Your task to perform on an android device: When is my next meeting? Image 0: 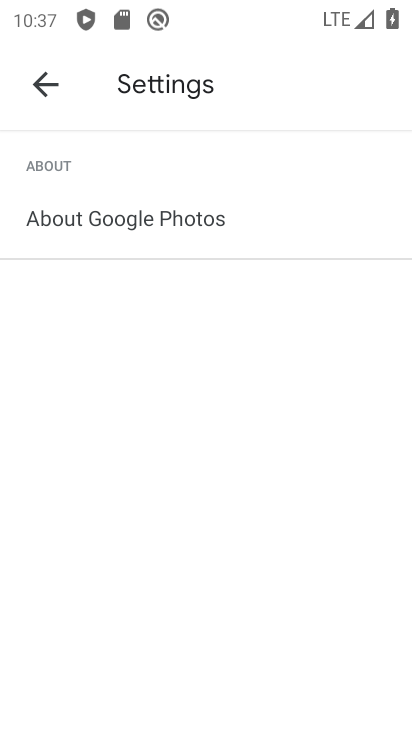
Step 0: press back button
Your task to perform on an android device: When is my next meeting? Image 1: 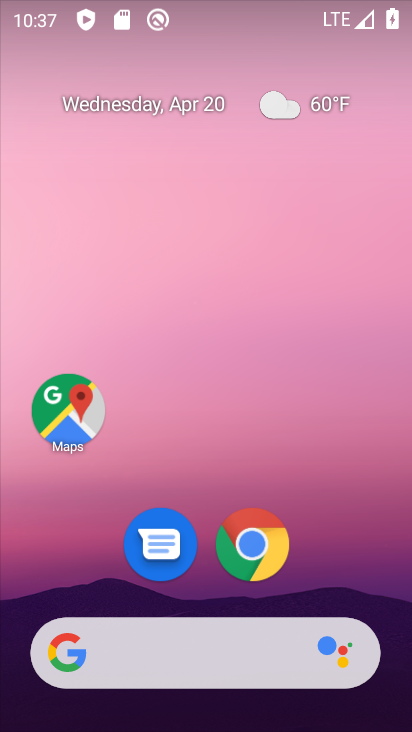
Step 1: drag from (355, 562) to (336, 287)
Your task to perform on an android device: When is my next meeting? Image 2: 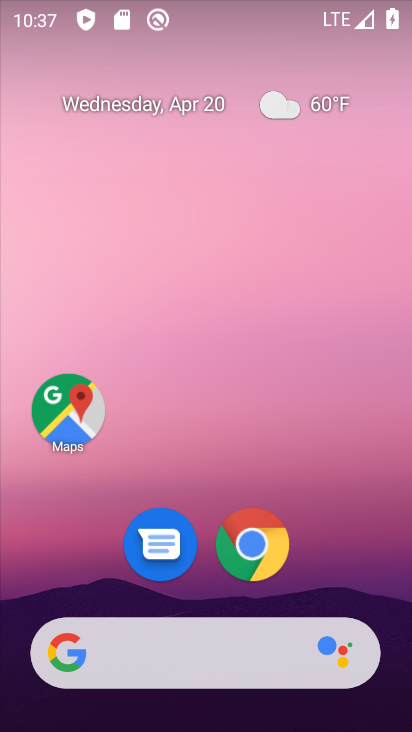
Step 2: drag from (383, 548) to (325, 124)
Your task to perform on an android device: When is my next meeting? Image 3: 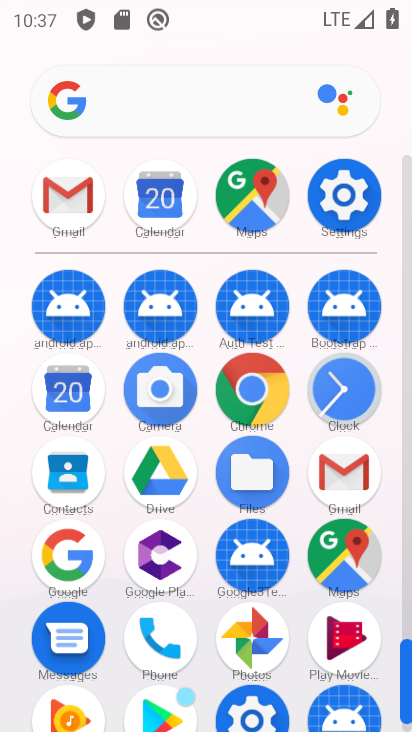
Step 3: click (57, 399)
Your task to perform on an android device: When is my next meeting? Image 4: 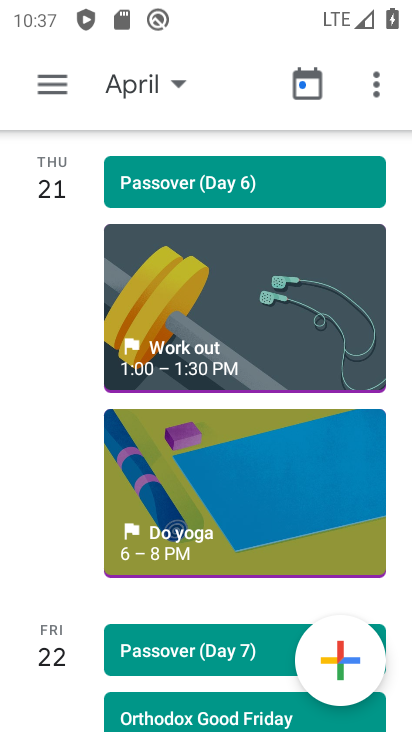
Step 4: click (64, 94)
Your task to perform on an android device: When is my next meeting? Image 5: 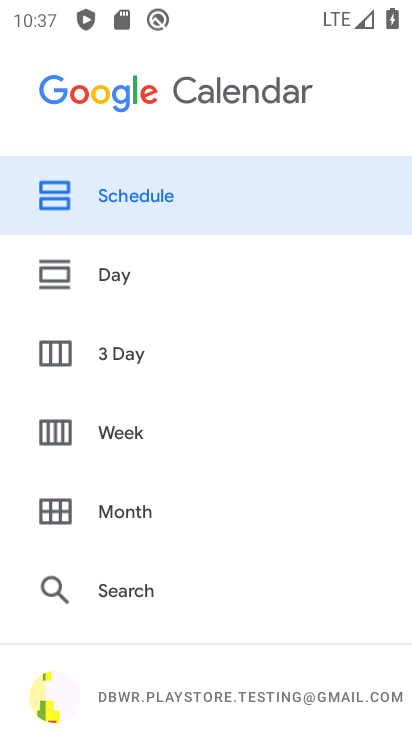
Step 5: click (150, 185)
Your task to perform on an android device: When is my next meeting? Image 6: 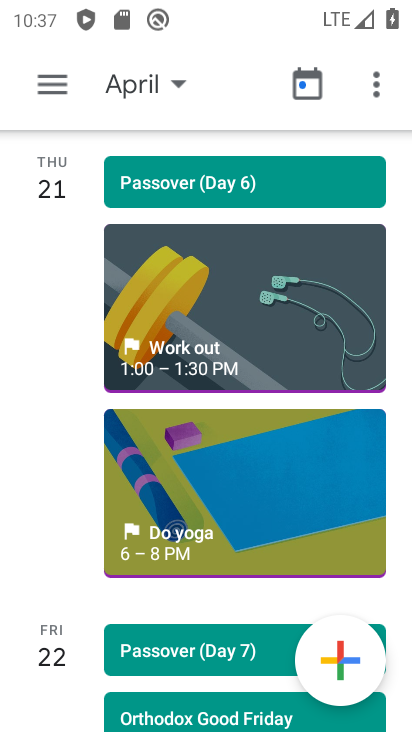
Step 6: task complete